Your task to perform on an android device: Open Yahoo.com Image 0: 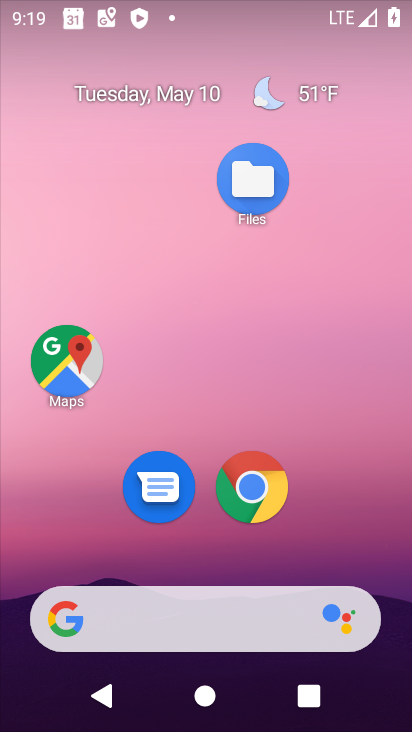
Step 0: click (256, 482)
Your task to perform on an android device: Open Yahoo.com Image 1: 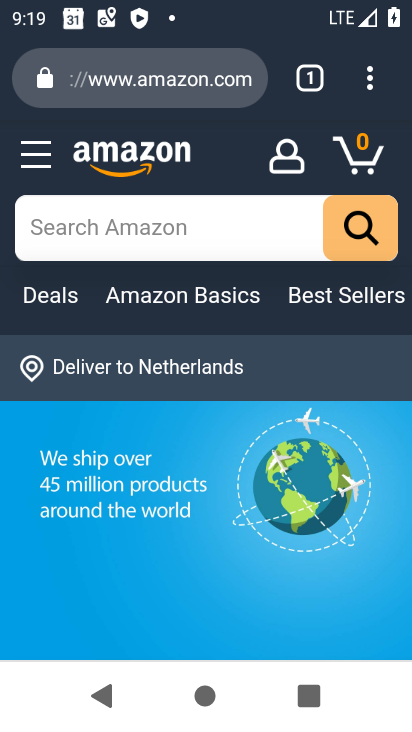
Step 1: press back button
Your task to perform on an android device: Open Yahoo.com Image 2: 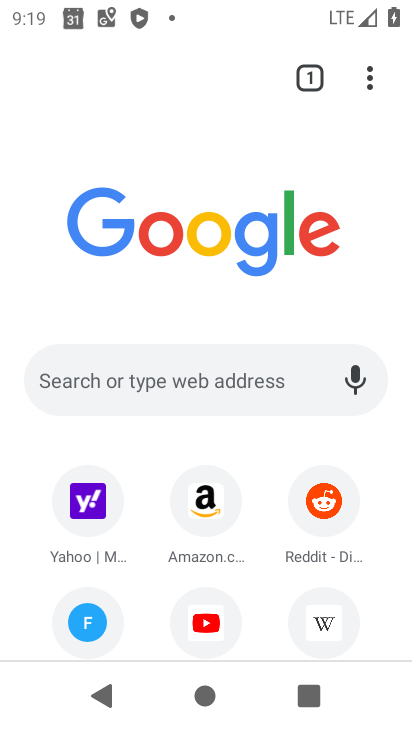
Step 2: click (93, 499)
Your task to perform on an android device: Open Yahoo.com Image 3: 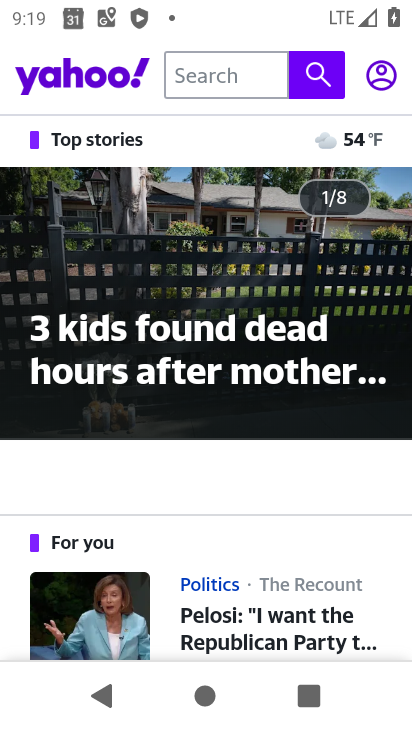
Step 3: task complete